Your task to perform on an android device: install app "Mercado Libre" Image 0: 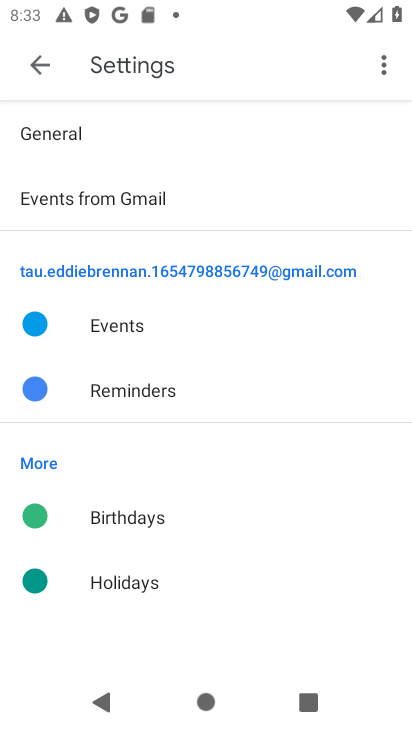
Step 0: click (36, 82)
Your task to perform on an android device: install app "Mercado Libre" Image 1: 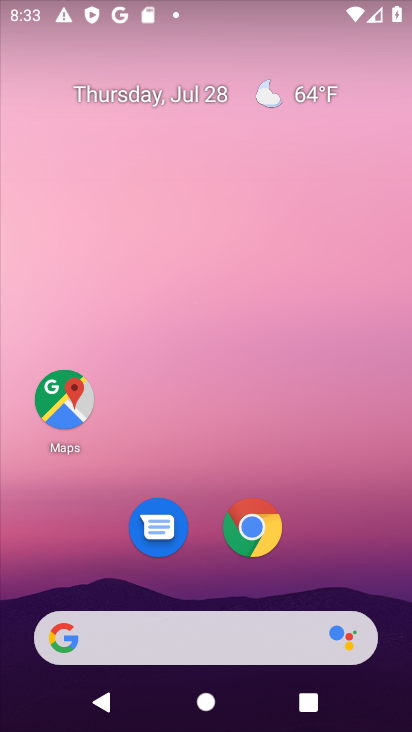
Step 1: click (156, 627)
Your task to perform on an android device: install app "Mercado Libre" Image 2: 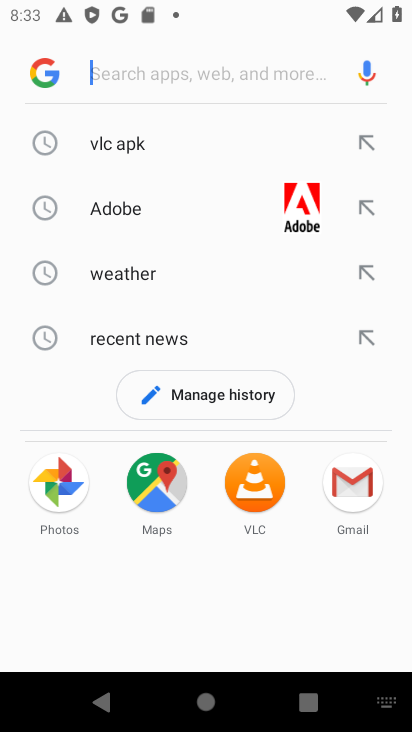
Step 2: type "mercado liber"
Your task to perform on an android device: install app "Mercado Libre" Image 3: 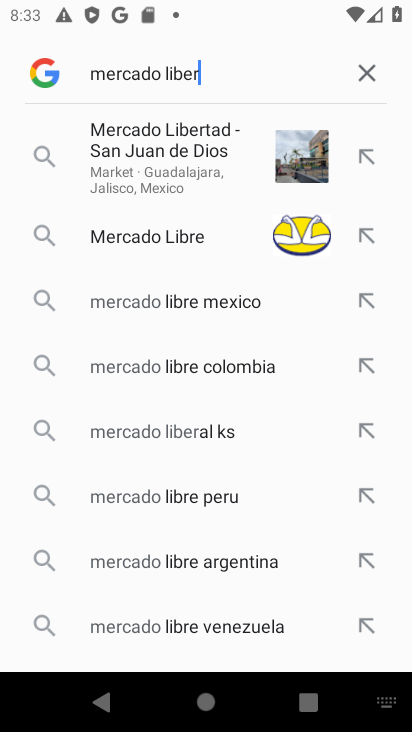
Step 3: click (163, 257)
Your task to perform on an android device: install app "Mercado Libre" Image 4: 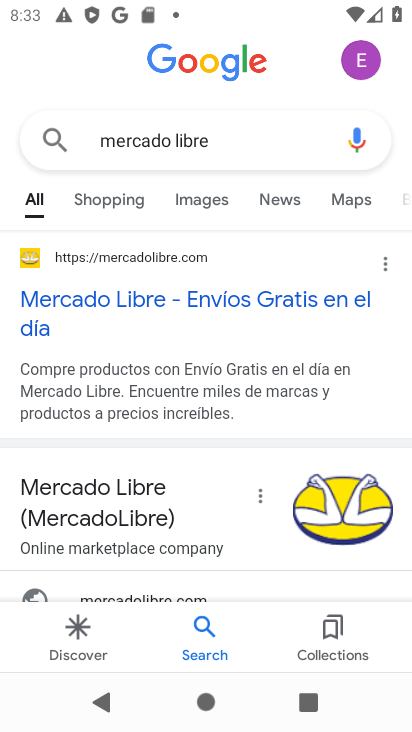
Step 4: drag from (161, 486) to (227, 100)
Your task to perform on an android device: install app "Mercado Libre" Image 5: 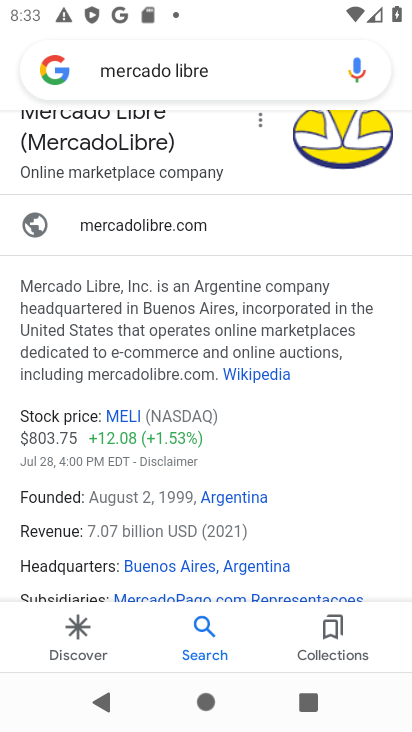
Step 5: drag from (256, 534) to (249, 327)
Your task to perform on an android device: install app "Mercado Libre" Image 6: 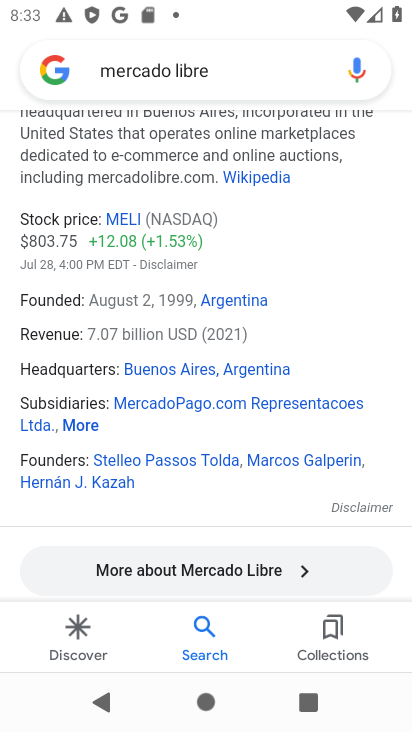
Step 6: drag from (234, 529) to (244, 261)
Your task to perform on an android device: install app "Mercado Libre" Image 7: 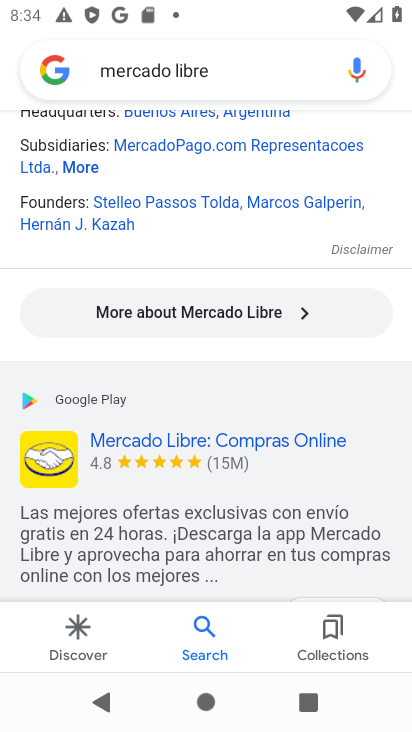
Step 7: drag from (220, 521) to (231, 352)
Your task to perform on an android device: install app "Mercado Libre" Image 8: 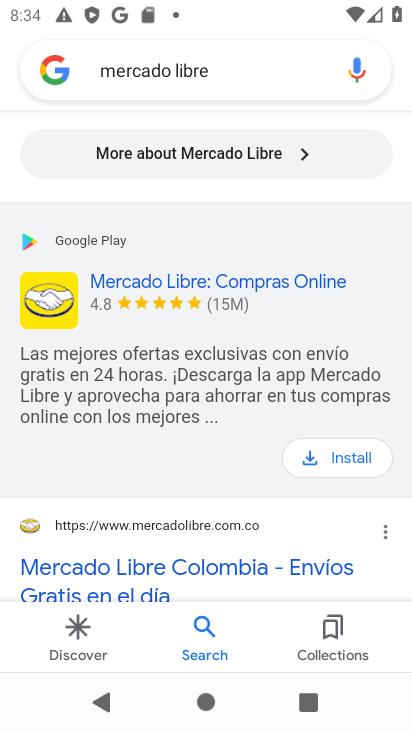
Step 8: click (312, 451)
Your task to perform on an android device: install app "Mercado Libre" Image 9: 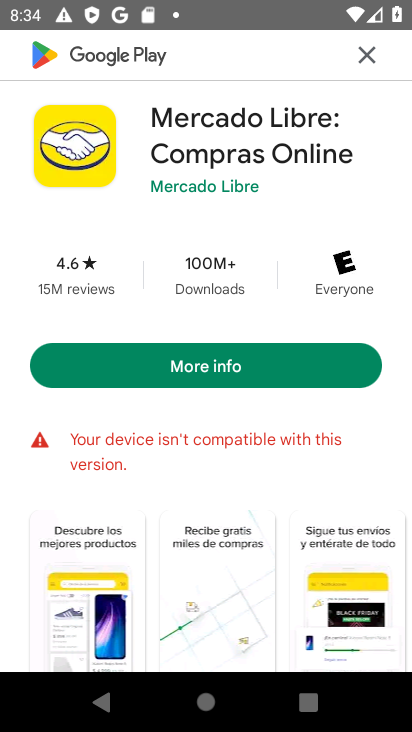
Step 9: click (158, 121)
Your task to perform on an android device: install app "Mercado Libre" Image 10: 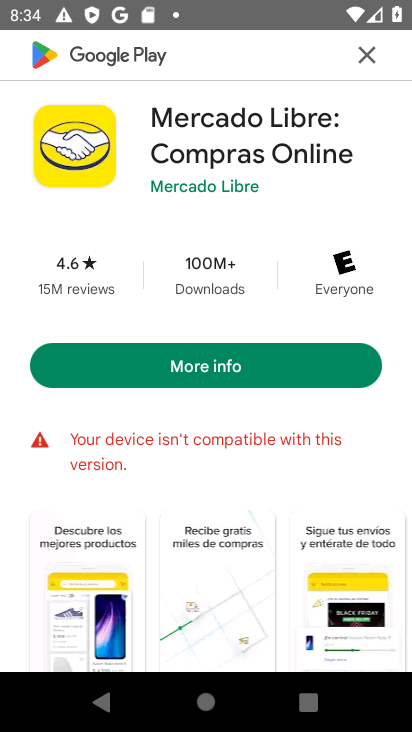
Step 10: task complete